Your task to perform on an android device: Show me popular videos on Youtube Image 0: 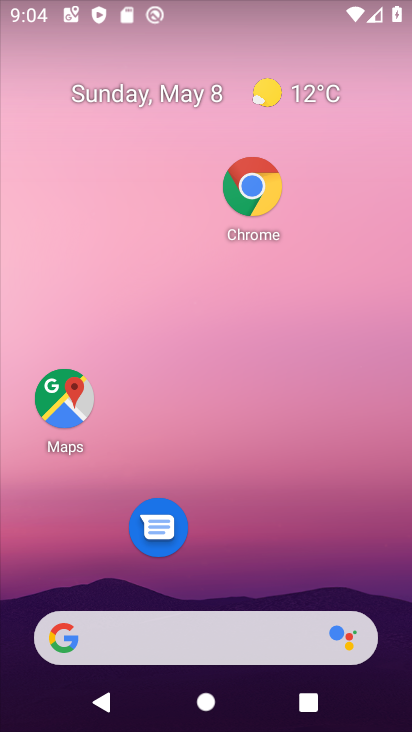
Step 0: drag from (306, 357) to (305, 223)
Your task to perform on an android device: Show me popular videos on Youtube Image 1: 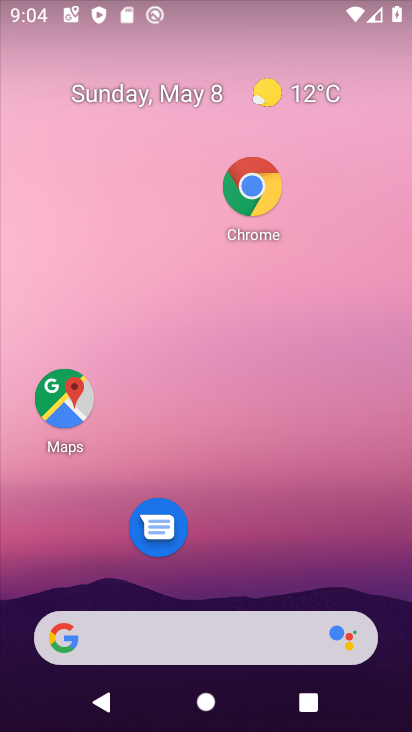
Step 1: drag from (263, 590) to (341, 197)
Your task to perform on an android device: Show me popular videos on Youtube Image 2: 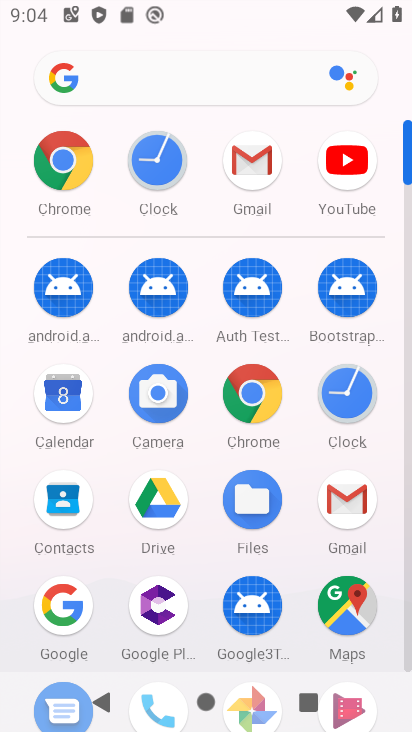
Step 2: drag from (232, 519) to (236, 579)
Your task to perform on an android device: Show me popular videos on Youtube Image 3: 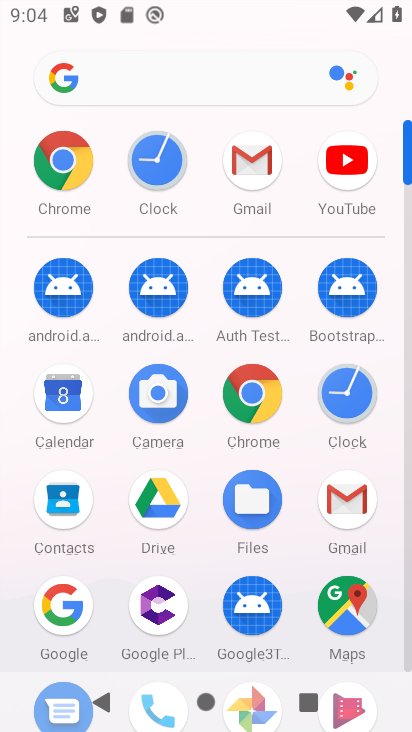
Step 3: click (339, 177)
Your task to perform on an android device: Show me popular videos on Youtube Image 4: 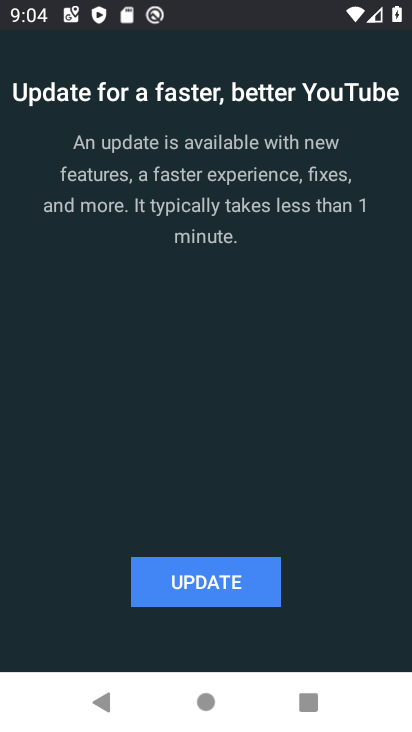
Step 4: click (214, 572)
Your task to perform on an android device: Show me popular videos on Youtube Image 5: 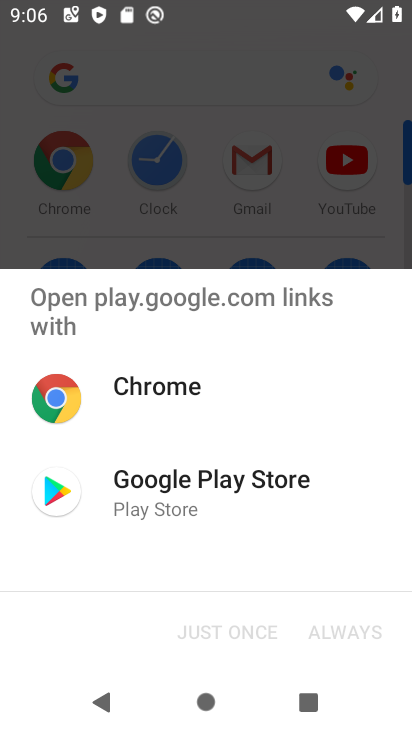
Step 5: task complete